Your task to perform on an android device: check battery use Image 0: 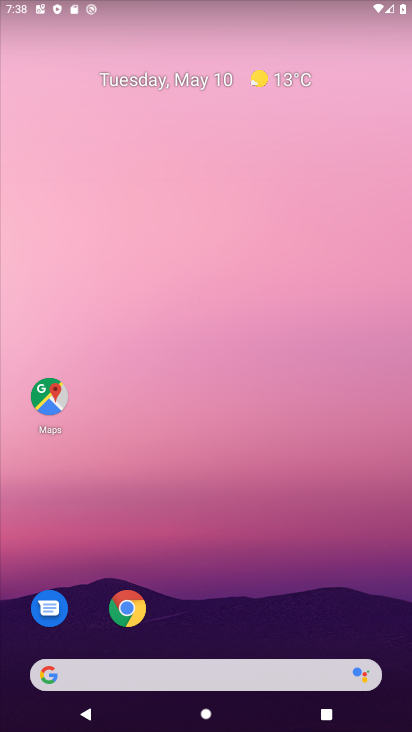
Step 0: drag from (206, 582) to (286, 1)
Your task to perform on an android device: check battery use Image 1: 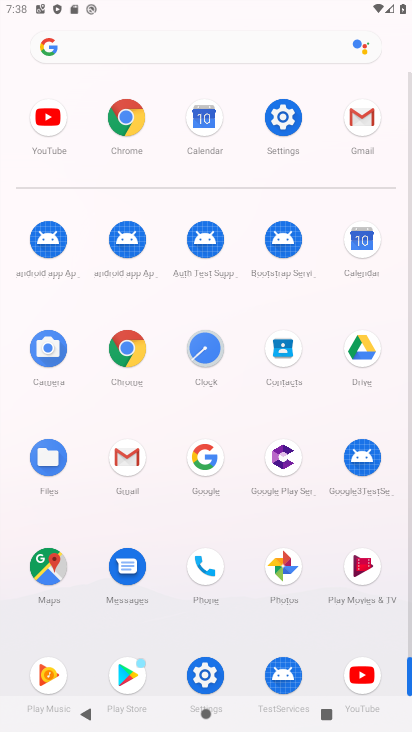
Step 1: click (278, 131)
Your task to perform on an android device: check battery use Image 2: 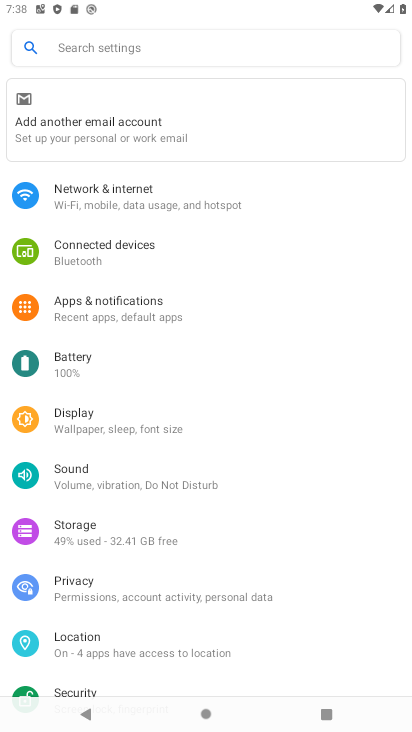
Step 2: click (73, 368)
Your task to perform on an android device: check battery use Image 3: 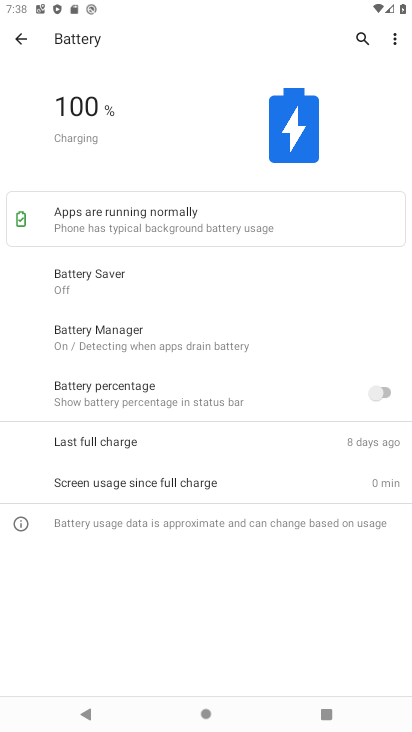
Step 3: task complete